Your task to perform on an android device: Open Android settings Image 0: 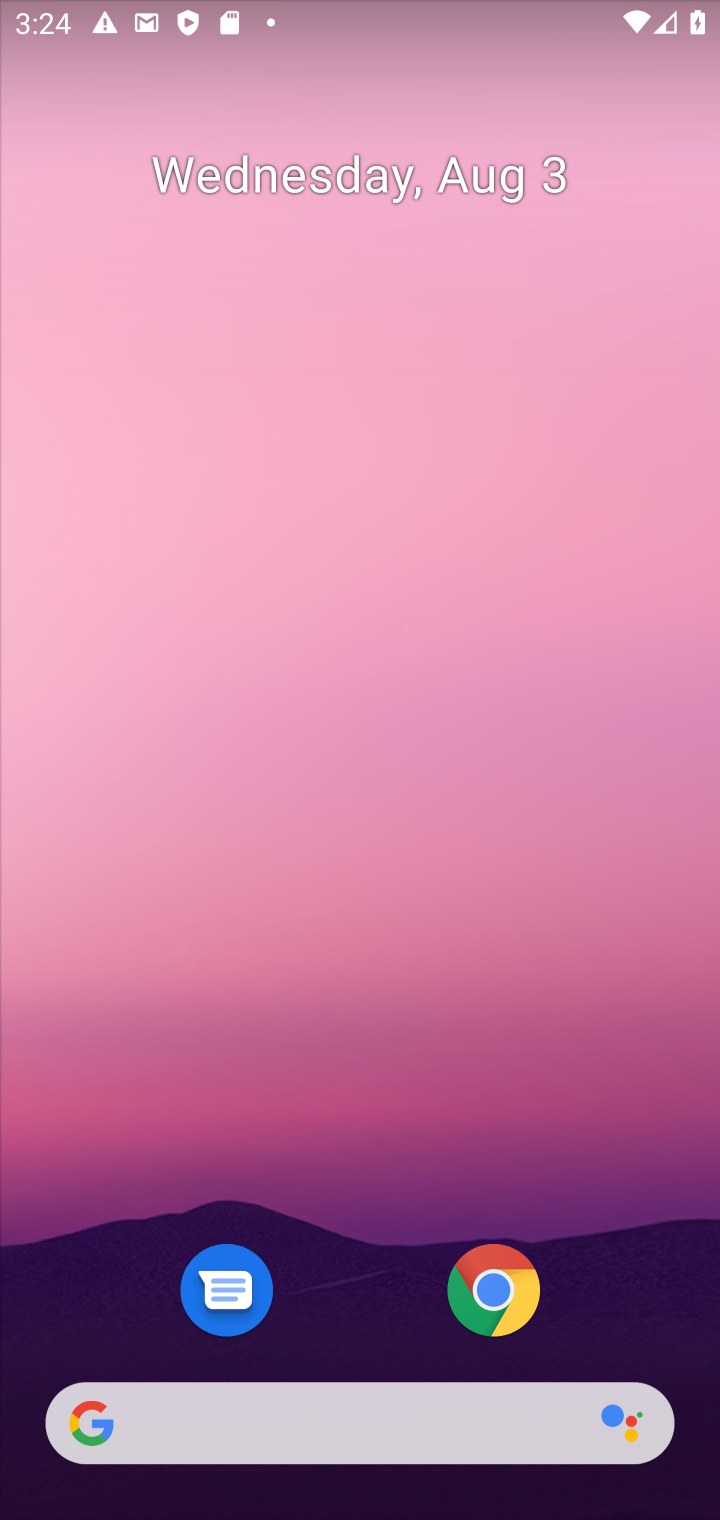
Step 0: drag from (319, 1258) to (349, 5)
Your task to perform on an android device: Open Android settings Image 1: 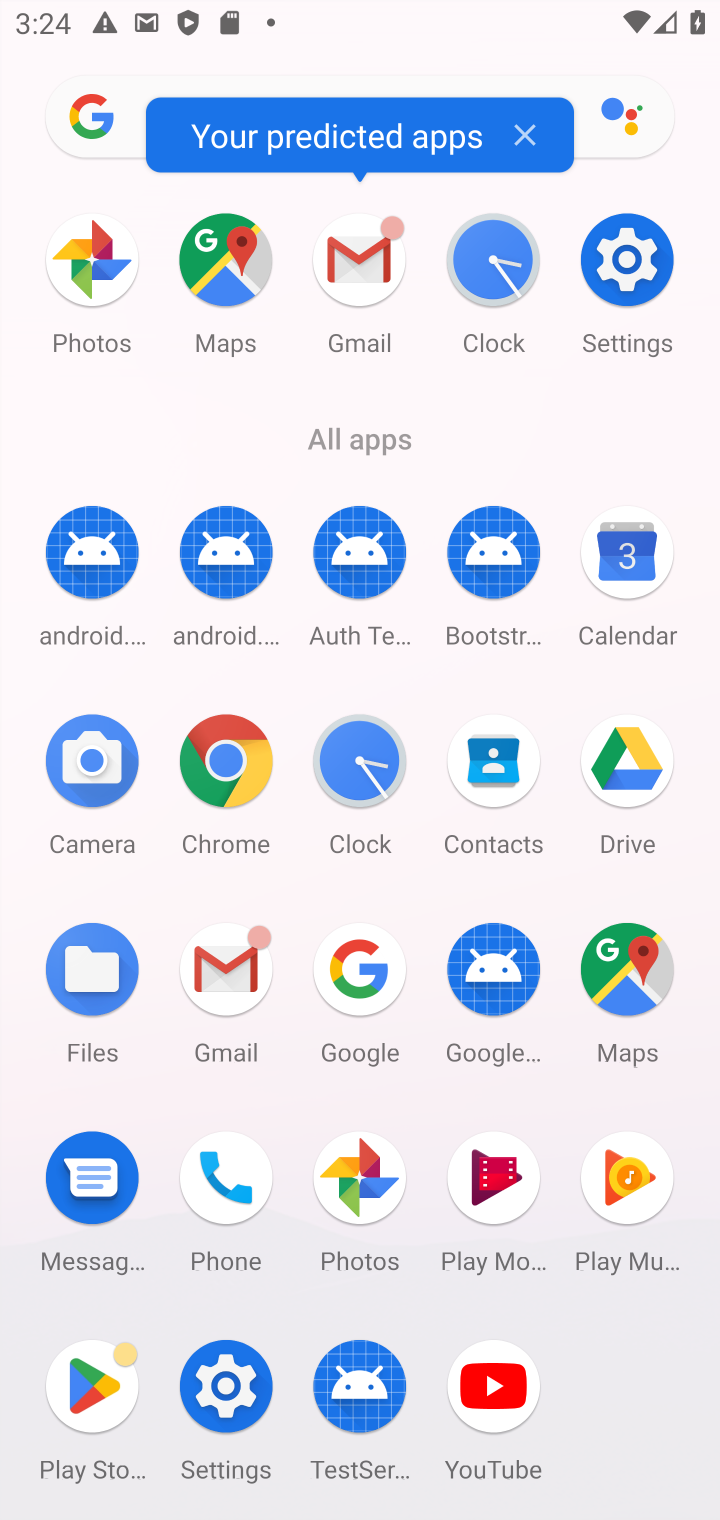
Step 1: click (591, 263)
Your task to perform on an android device: Open Android settings Image 2: 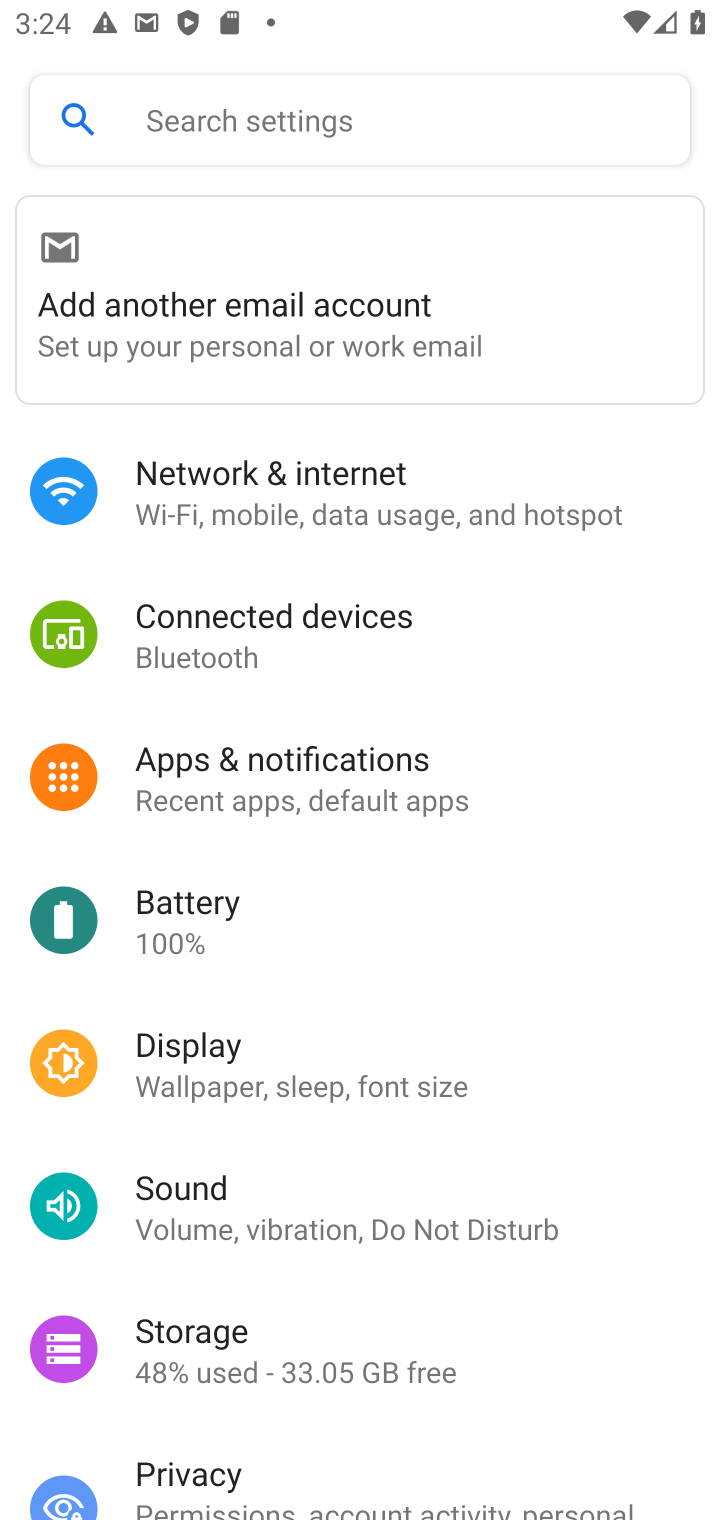
Step 2: drag from (364, 1259) to (466, 197)
Your task to perform on an android device: Open Android settings Image 3: 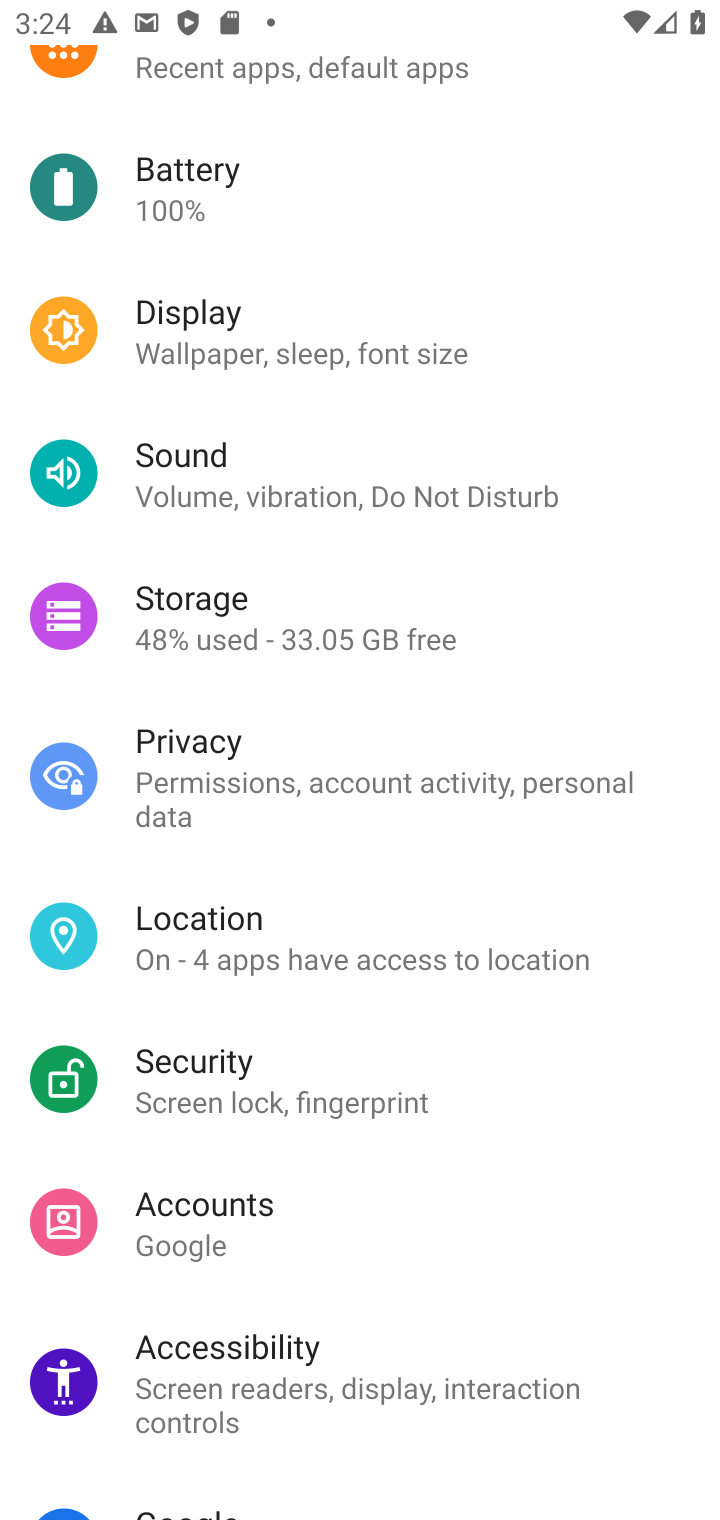
Step 3: drag from (328, 1247) to (446, 317)
Your task to perform on an android device: Open Android settings Image 4: 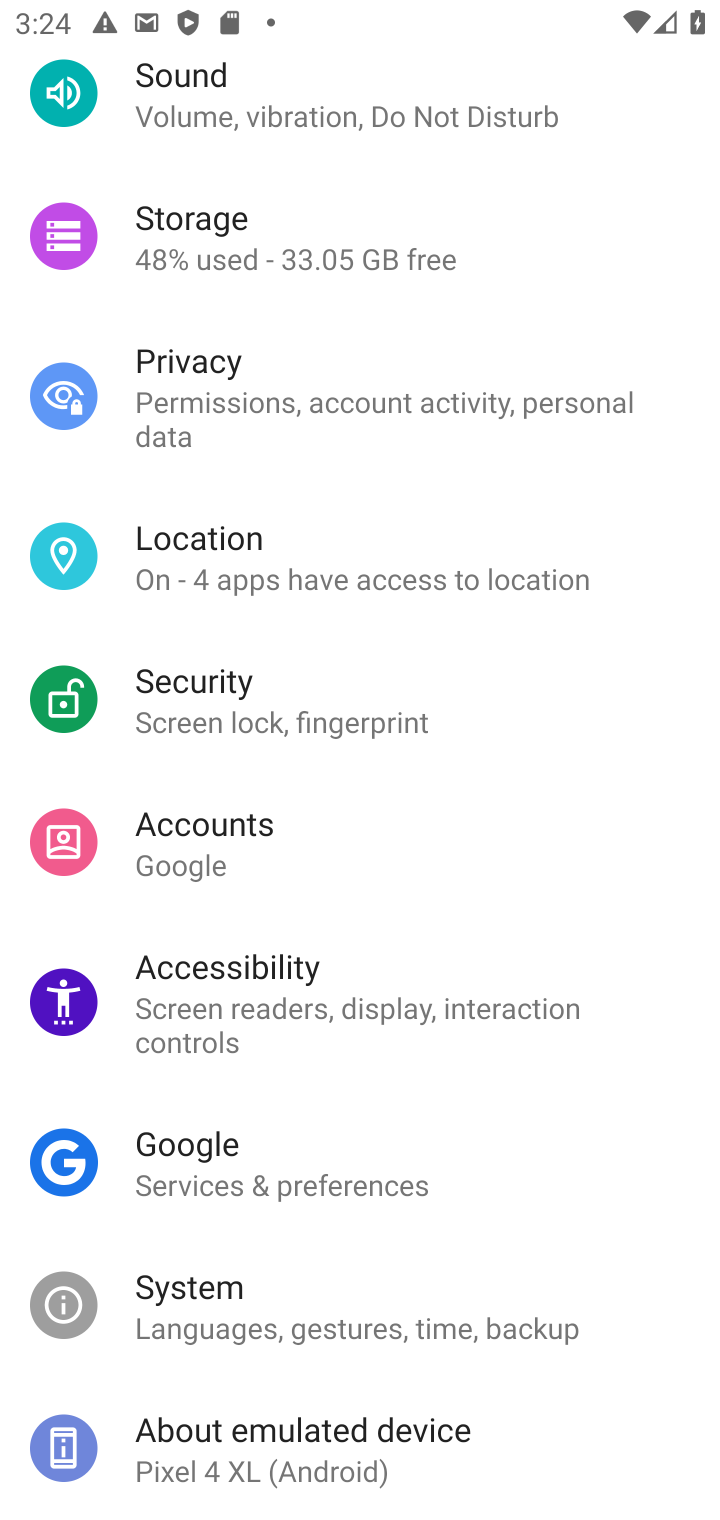
Step 4: click (247, 1460)
Your task to perform on an android device: Open Android settings Image 5: 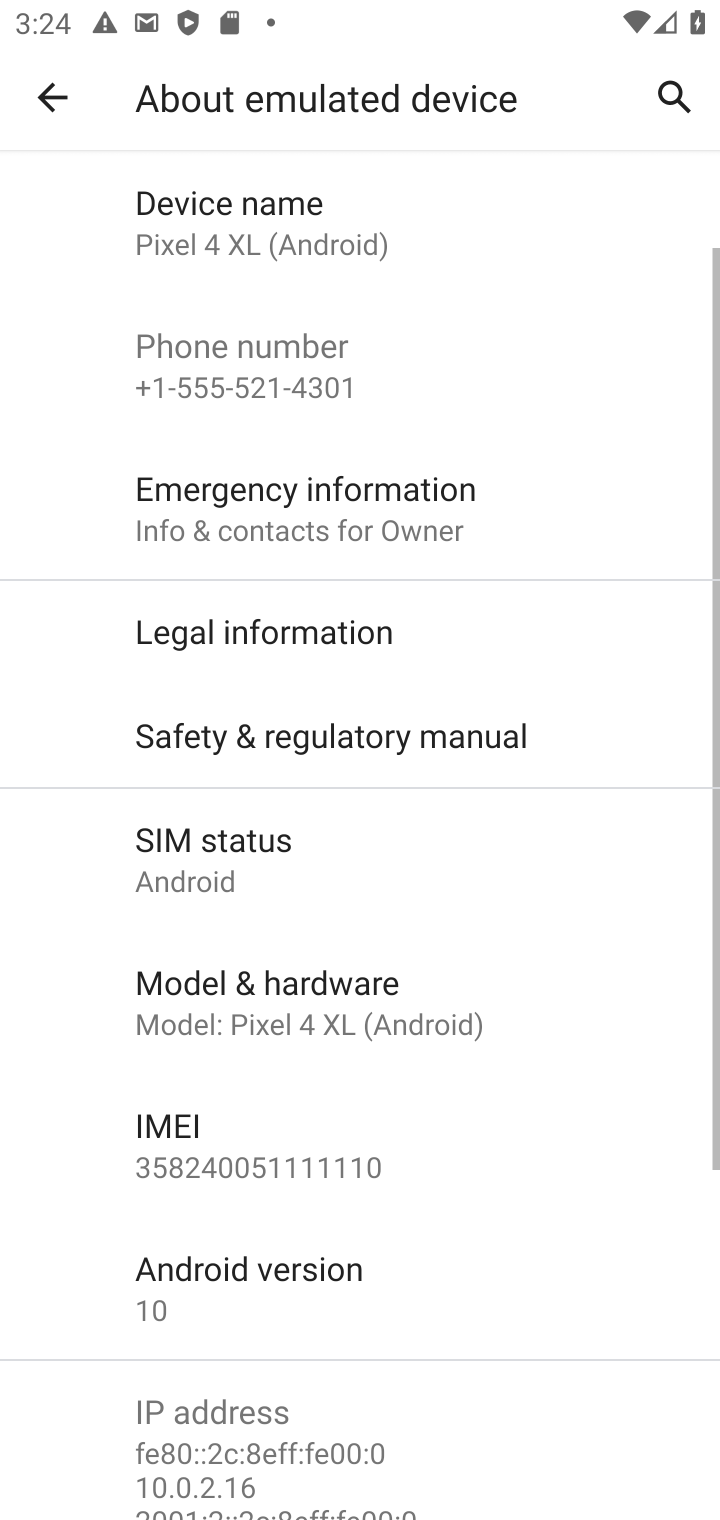
Step 5: click (286, 1301)
Your task to perform on an android device: Open Android settings Image 6: 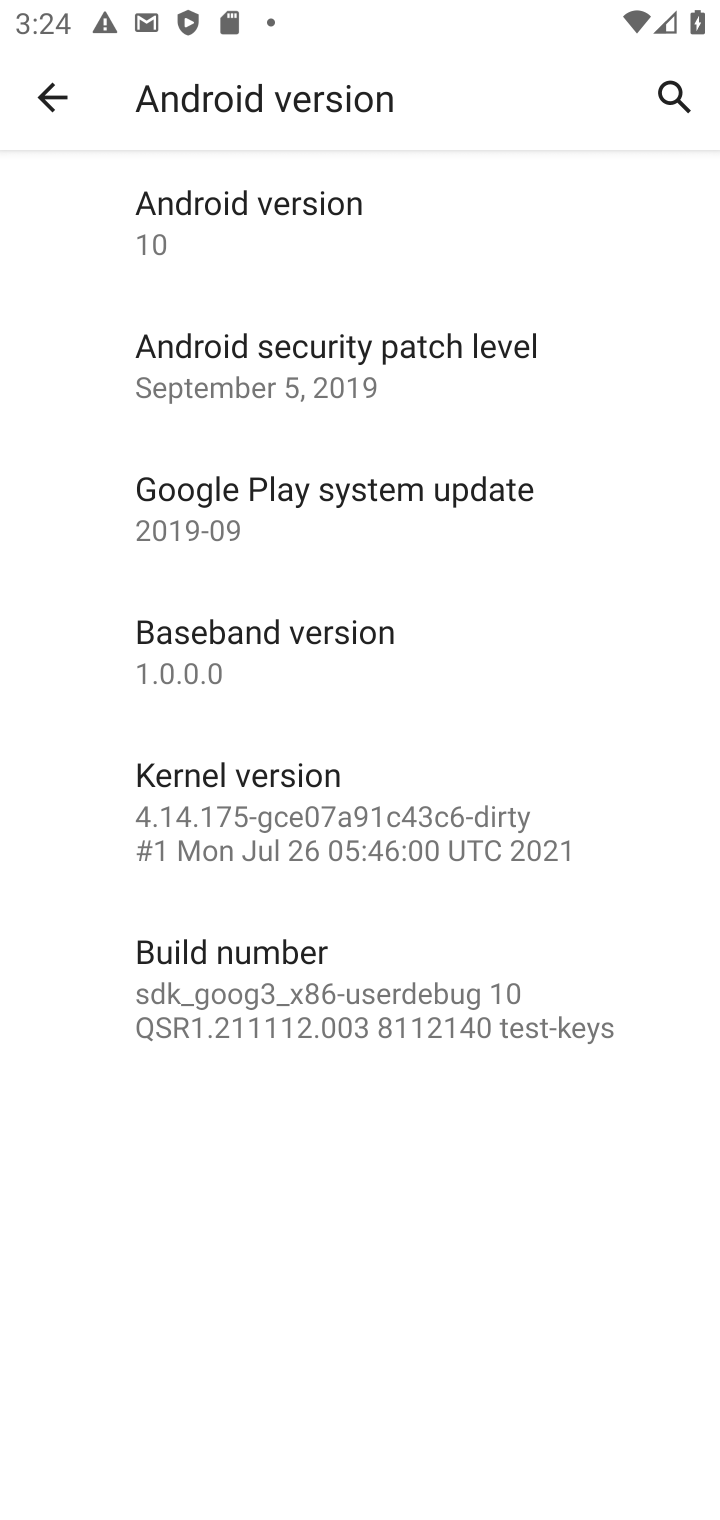
Step 6: task complete